Your task to perform on an android device: turn off translation in the chrome app Image 0: 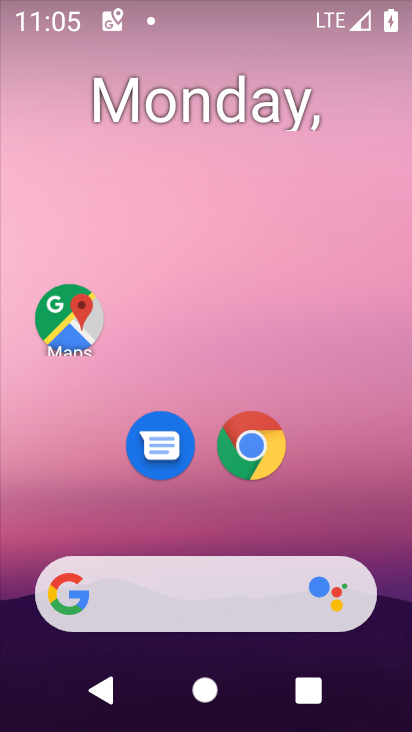
Step 0: click (247, 457)
Your task to perform on an android device: turn off translation in the chrome app Image 1: 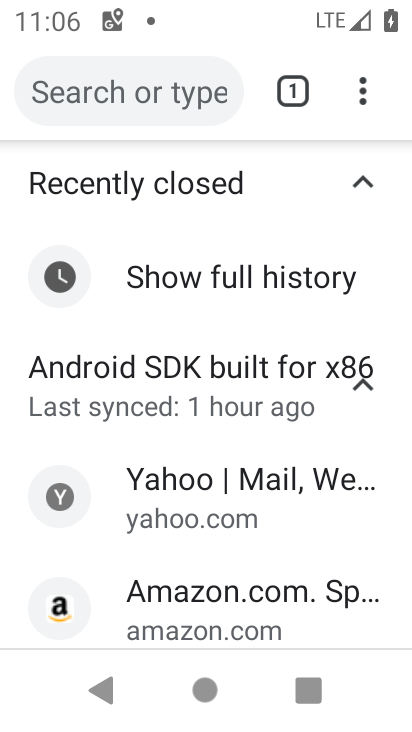
Step 1: click (365, 81)
Your task to perform on an android device: turn off translation in the chrome app Image 2: 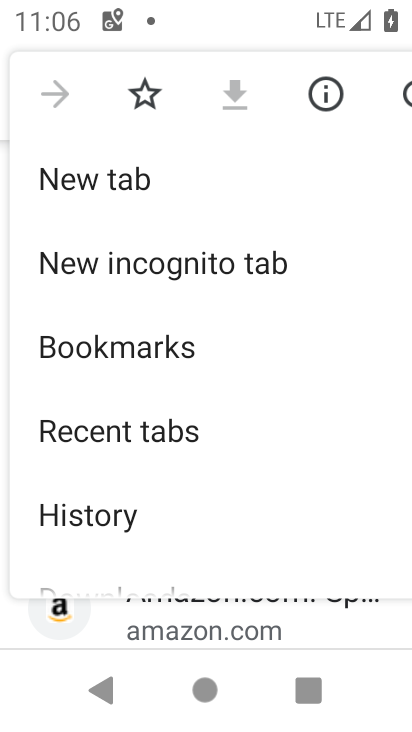
Step 2: drag from (238, 529) to (376, 38)
Your task to perform on an android device: turn off translation in the chrome app Image 3: 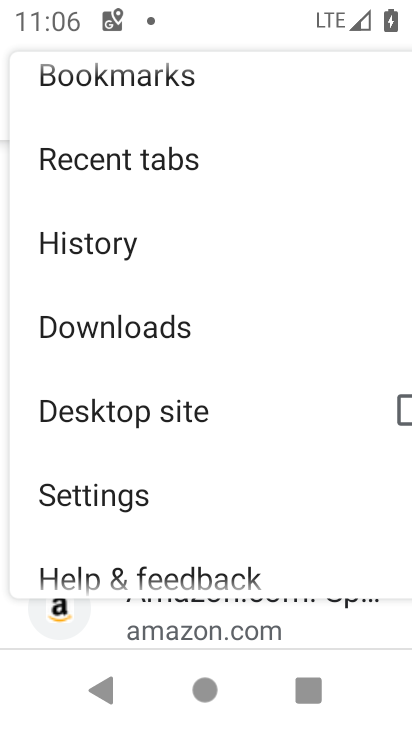
Step 3: click (173, 486)
Your task to perform on an android device: turn off translation in the chrome app Image 4: 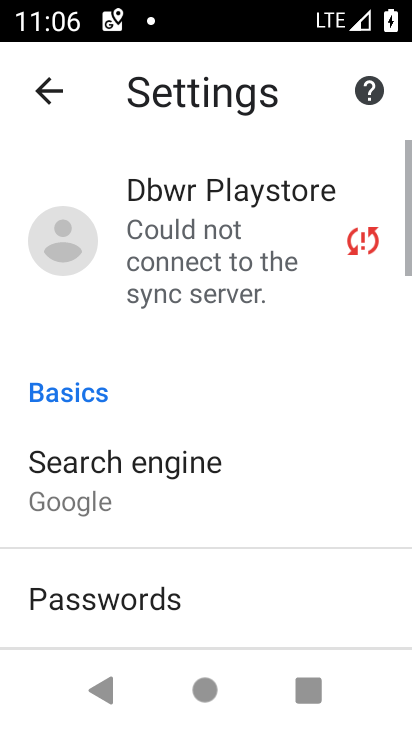
Step 4: drag from (244, 542) to (184, 20)
Your task to perform on an android device: turn off translation in the chrome app Image 5: 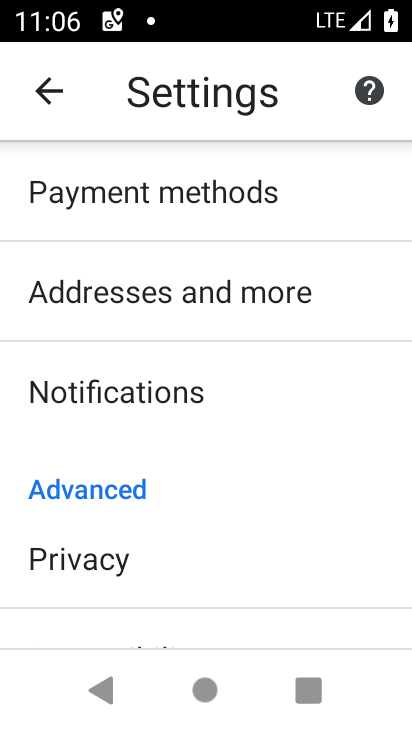
Step 5: drag from (297, 561) to (257, 17)
Your task to perform on an android device: turn off translation in the chrome app Image 6: 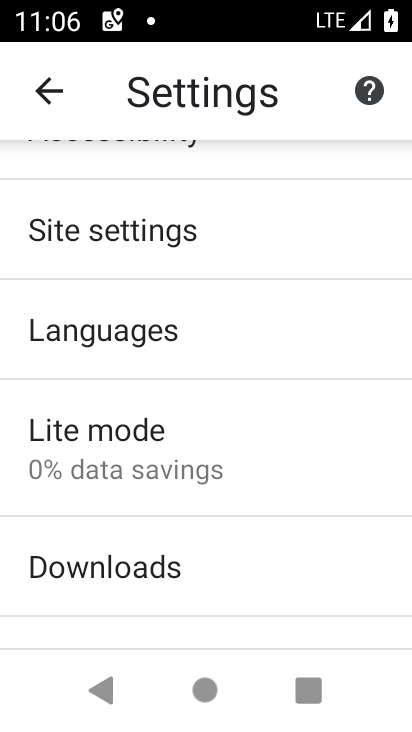
Step 6: drag from (272, 541) to (289, 15)
Your task to perform on an android device: turn off translation in the chrome app Image 7: 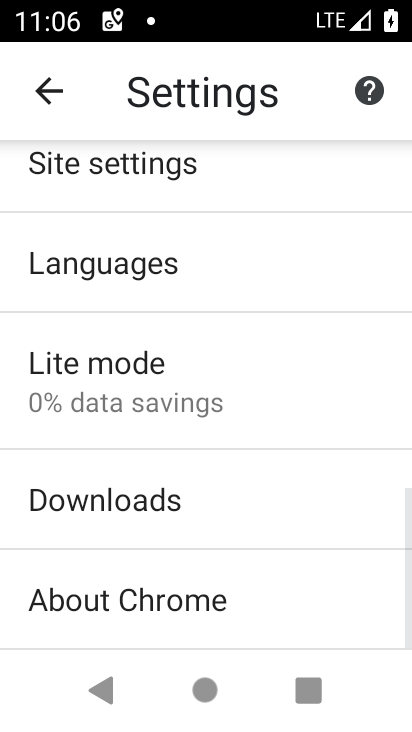
Step 7: drag from (331, 339) to (320, 633)
Your task to perform on an android device: turn off translation in the chrome app Image 8: 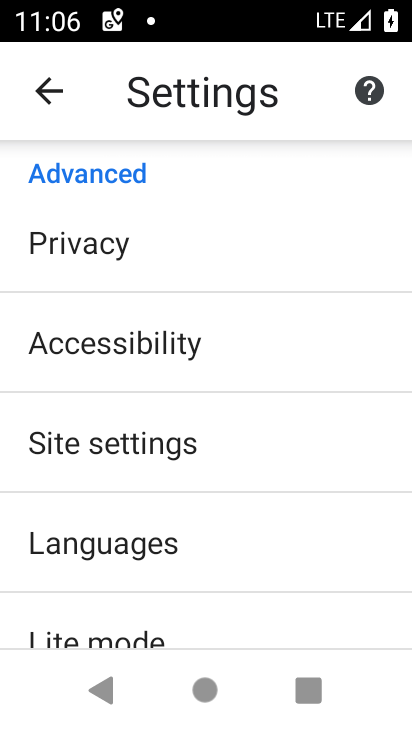
Step 8: drag from (310, 628) to (299, 204)
Your task to perform on an android device: turn off translation in the chrome app Image 9: 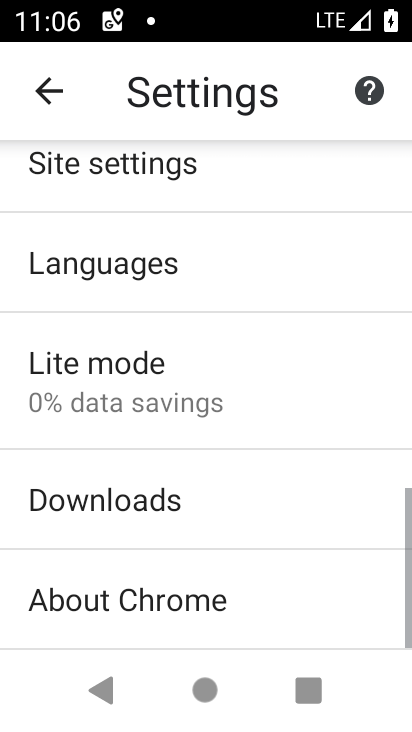
Step 9: drag from (314, 181) to (368, 724)
Your task to perform on an android device: turn off translation in the chrome app Image 10: 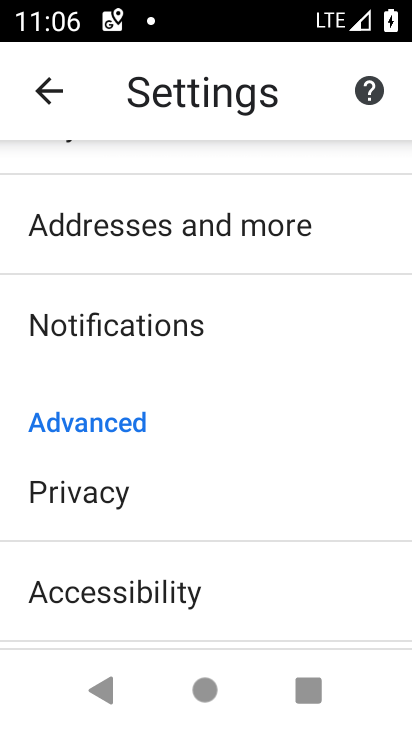
Step 10: drag from (299, 596) to (315, 31)
Your task to perform on an android device: turn off translation in the chrome app Image 11: 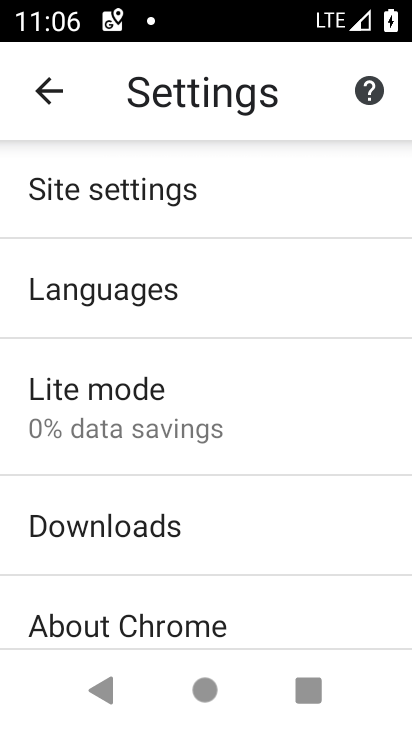
Step 11: click (210, 297)
Your task to perform on an android device: turn off translation in the chrome app Image 12: 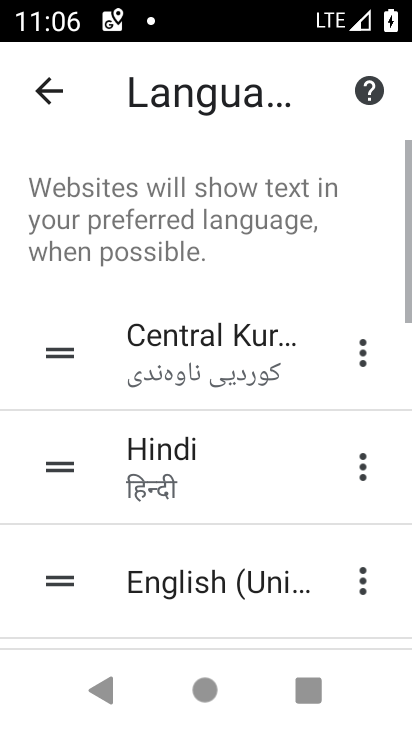
Step 12: drag from (232, 543) to (286, 30)
Your task to perform on an android device: turn off translation in the chrome app Image 13: 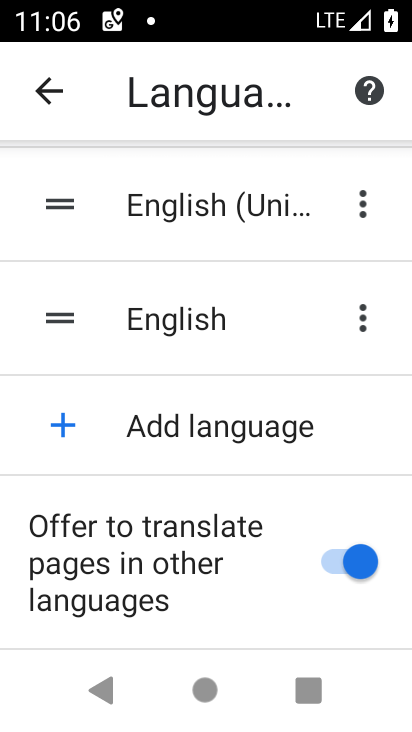
Step 13: drag from (261, 505) to (317, 11)
Your task to perform on an android device: turn off translation in the chrome app Image 14: 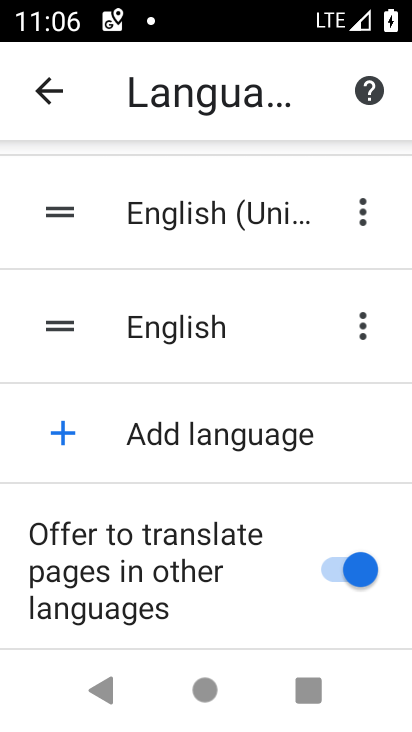
Step 14: click (363, 576)
Your task to perform on an android device: turn off translation in the chrome app Image 15: 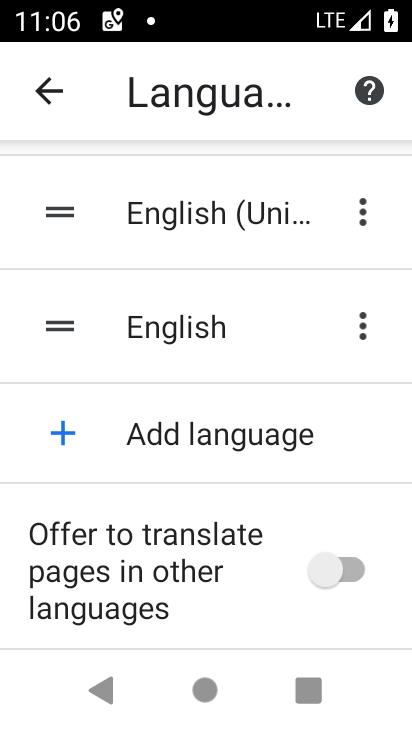
Step 15: task complete